Your task to perform on an android device: Open Google Maps Image 0: 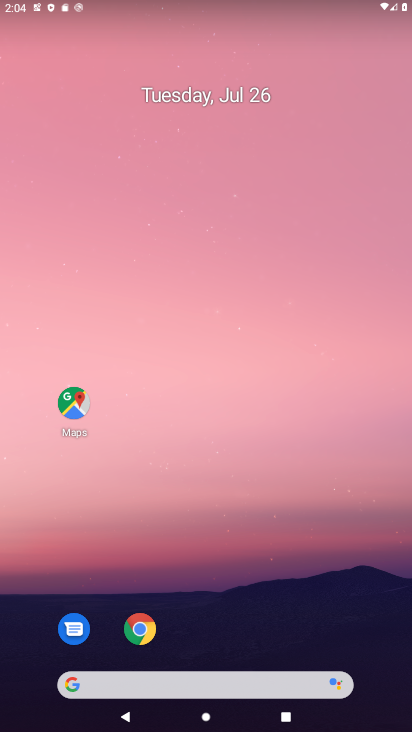
Step 0: drag from (251, 569) to (251, 161)
Your task to perform on an android device: Open Google Maps Image 1: 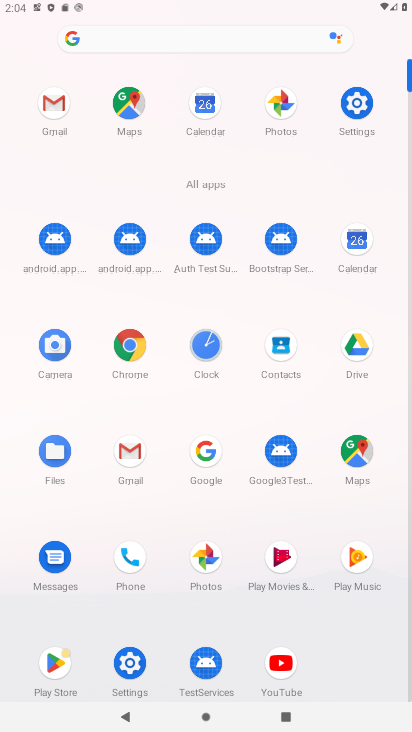
Step 1: click (354, 470)
Your task to perform on an android device: Open Google Maps Image 2: 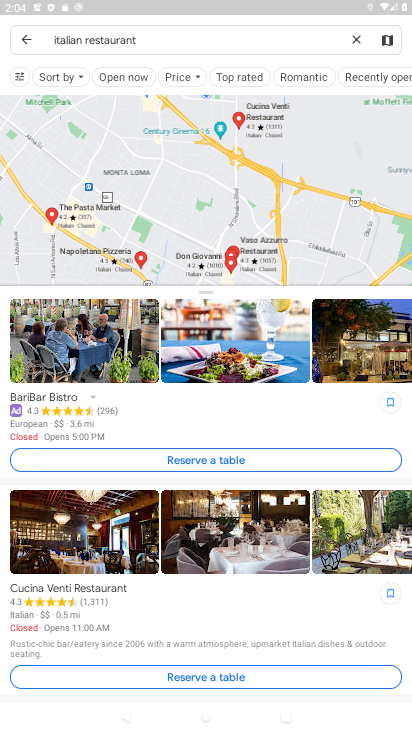
Step 2: task complete